Your task to perform on an android device: Is it going to rain tomorrow? Image 0: 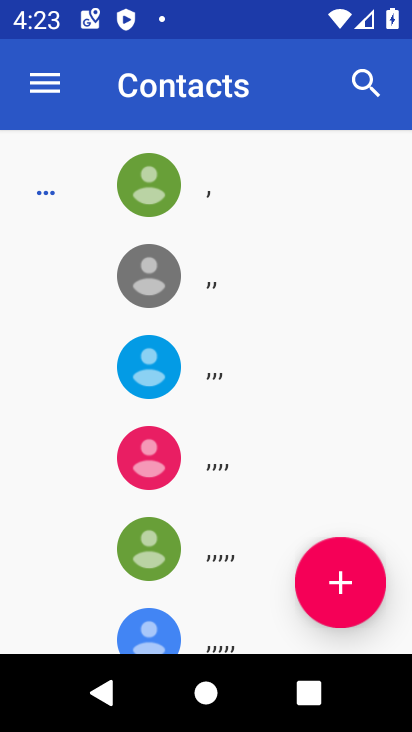
Step 0: press home button
Your task to perform on an android device: Is it going to rain tomorrow? Image 1: 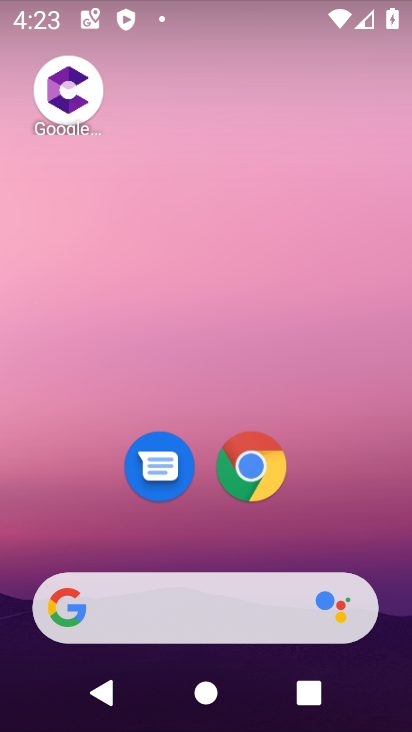
Step 1: drag from (343, 426) to (333, 71)
Your task to perform on an android device: Is it going to rain tomorrow? Image 2: 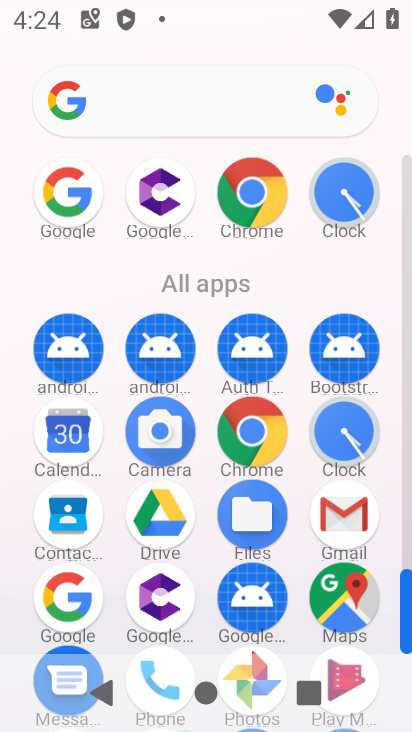
Step 2: press home button
Your task to perform on an android device: Is it going to rain tomorrow? Image 3: 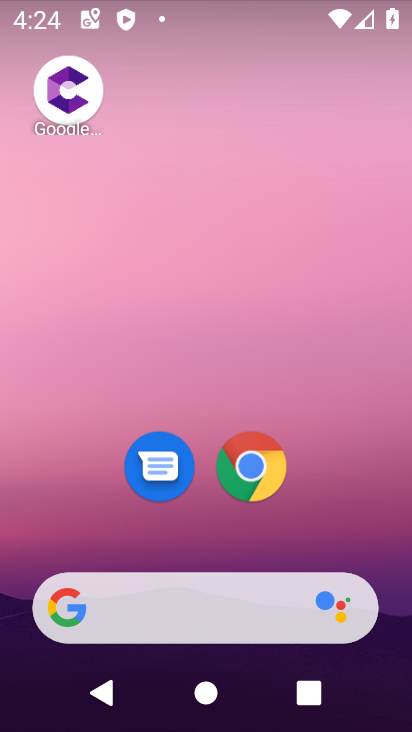
Step 3: drag from (345, 395) to (2, 363)
Your task to perform on an android device: Is it going to rain tomorrow? Image 4: 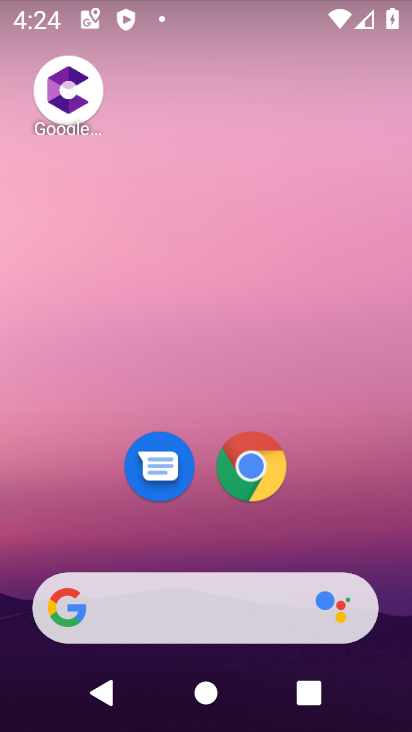
Step 4: press home button
Your task to perform on an android device: Is it going to rain tomorrow? Image 5: 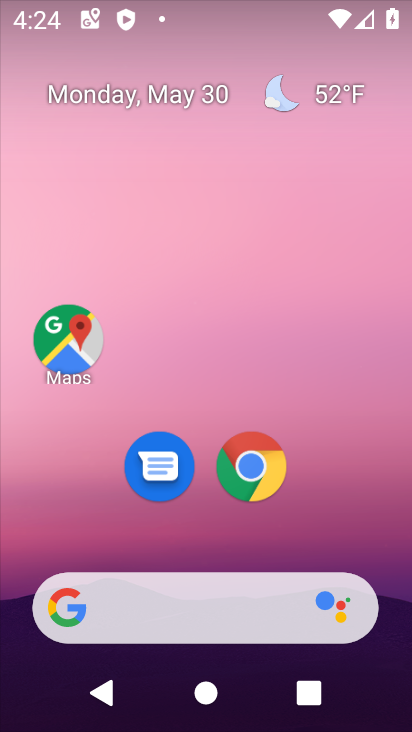
Step 5: click (353, 106)
Your task to perform on an android device: Is it going to rain tomorrow? Image 6: 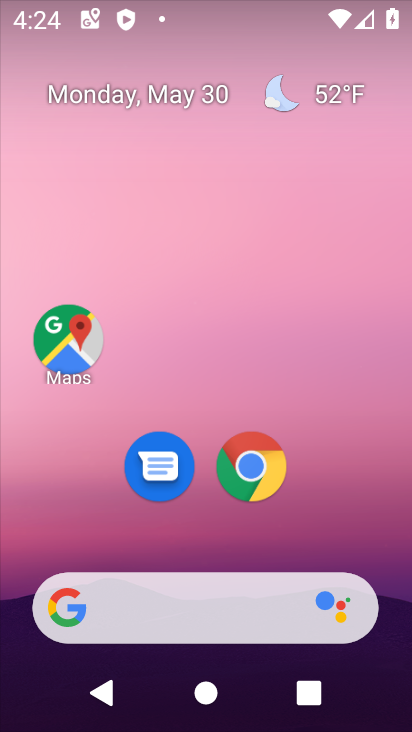
Step 6: click (334, 103)
Your task to perform on an android device: Is it going to rain tomorrow? Image 7: 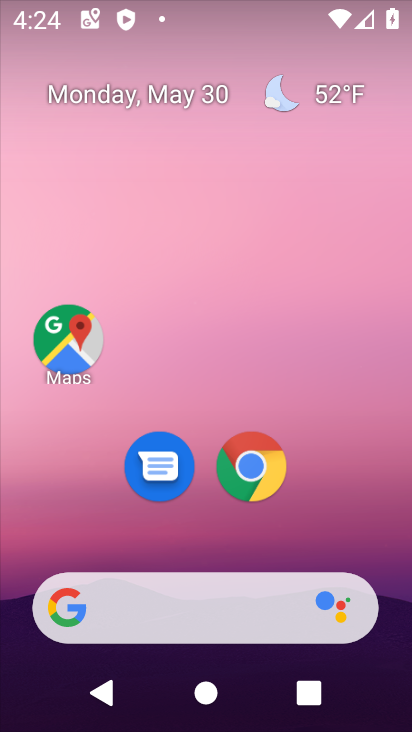
Step 7: click (335, 102)
Your task to perform on an android device: Is it going to rain tomorrow? Image 8: 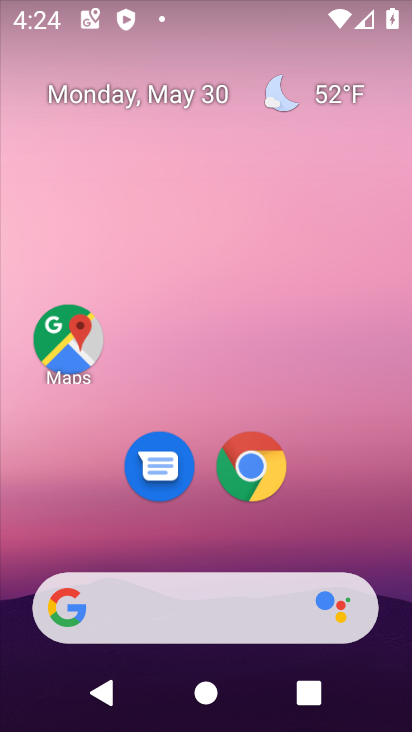
Step 8: click (337, 99)
Your task to perform on an android device: Is it going to rain tomorrow? Image 9: 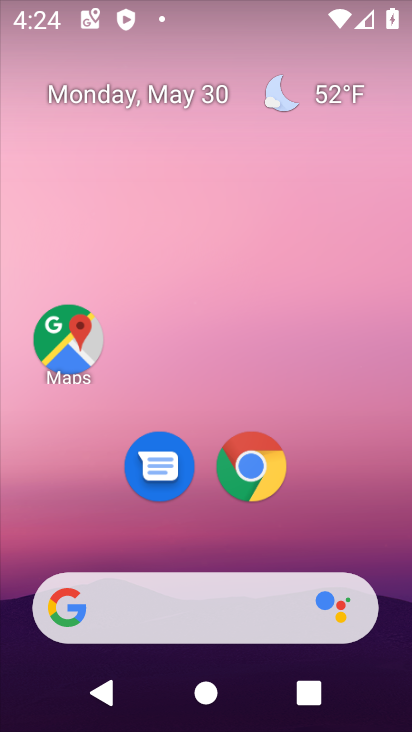
Step 9: click (248, 277)
Your task to perform on an android device: Is it going to rain tomorrow? Image 10: 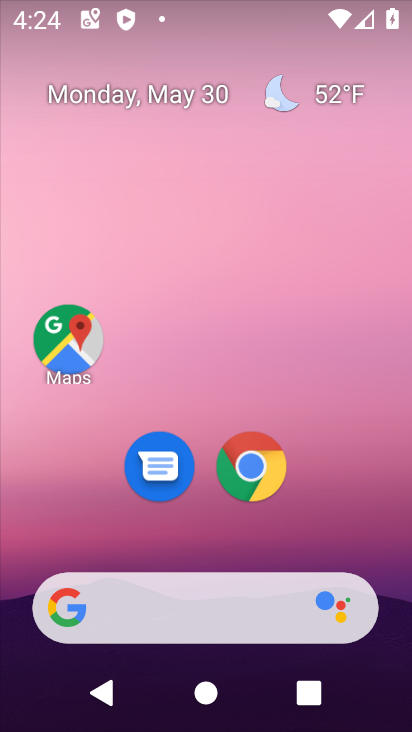
Step 10: click (346, 93)
Your task to perform on an android device: Is it going to rain tomorrow? Image 11: 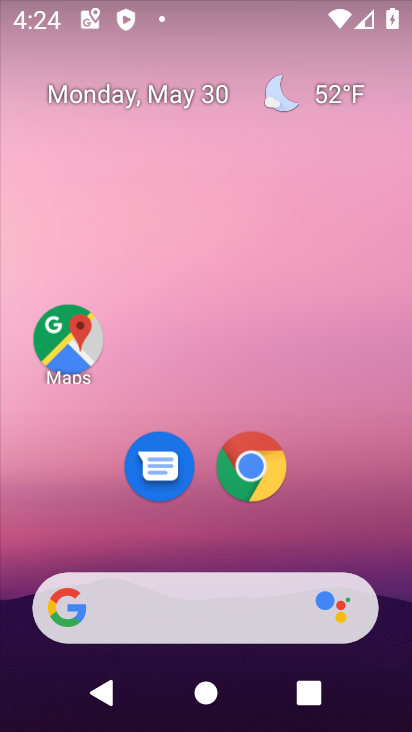
Step 11: drag from (321, 525) to (301, 117)
Your task to perform on an android device: Is it going to rain tomorrow? Image 12: 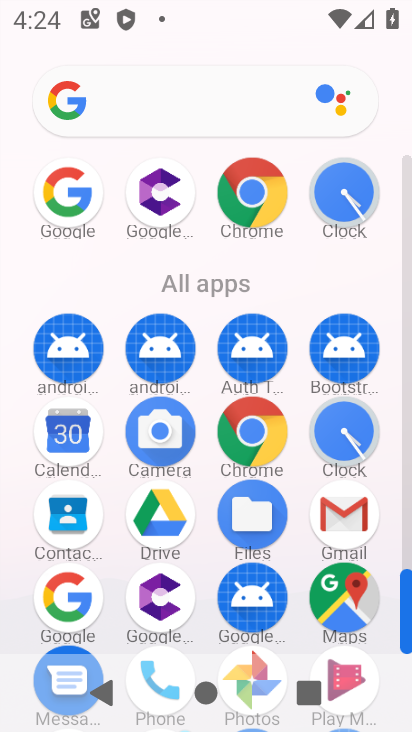
Step 12: press home button
Your task to perform on an android device: Is it going to rain tomorrow? Image 13: 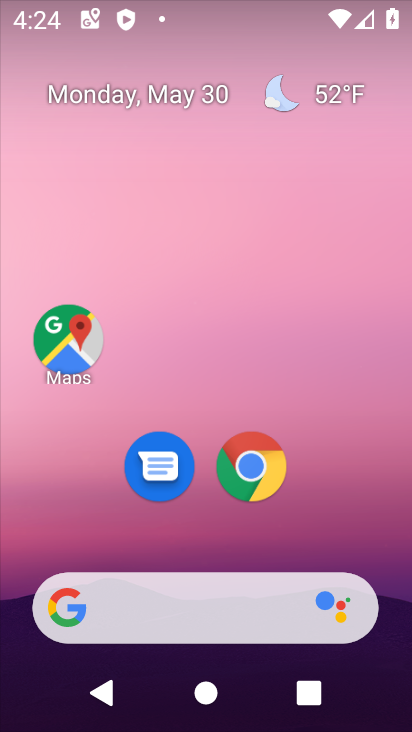
Step 13: click (349, 103)
Your task to perform on an android device: Is it going to rain tomorrow? Image 14: 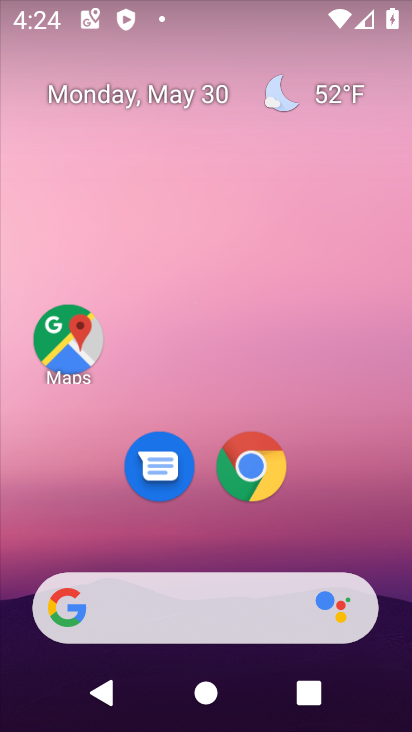
Step 14: click (330, 94)
Your task to perform on an android device: Is it going to rain tomorrow? Image 15: 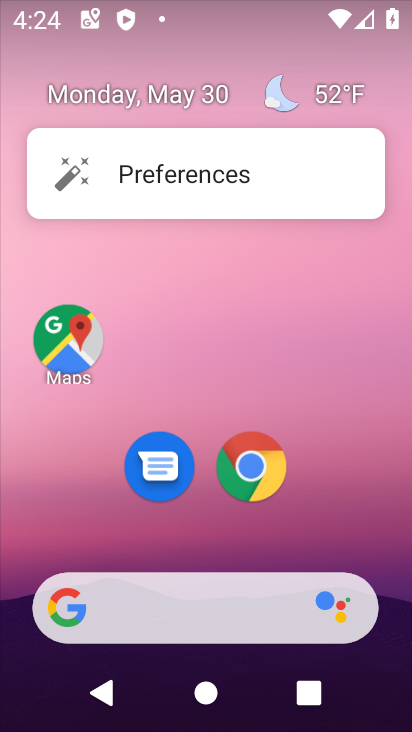
Step 15: click (270, 95)
Your task to perform on an android device: Is it going to rain tomorrow? Image 16: 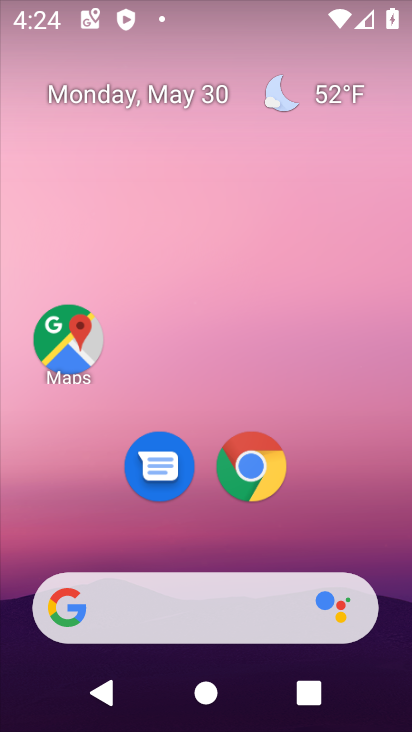
Step 16: click (339, 94)
Your task to perform on an android device: Is it going to rain tomorrow? Image 17: 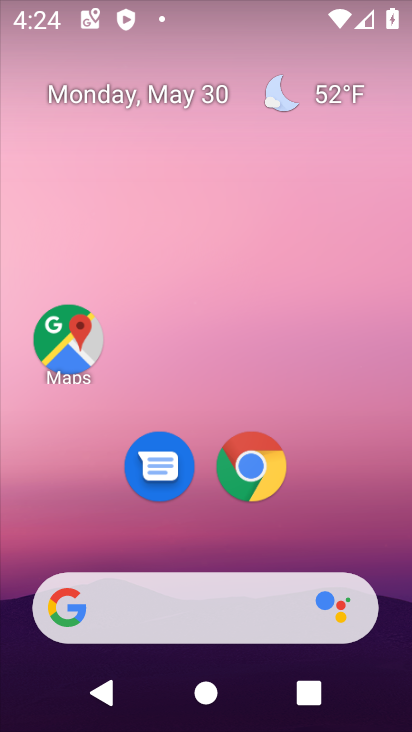
Step 17: click (340, 92)
Your task to perform on an android device: Is it going to rain tomorrow? Image 18: 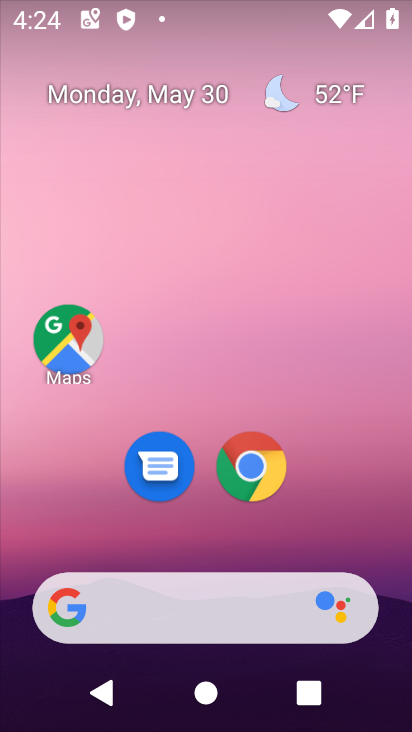
Step 18: drag from (367, 514) to (297, 81)
Your task to perform on an android device: Is it going to rain tomorrow? Image 19: 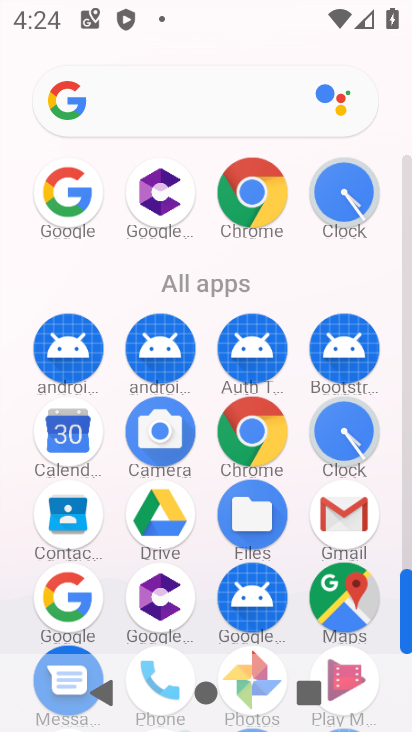
Step 19: click (262, 424)
Your task to perform on an android device: Is it going to rain tomorrow? Image 20: 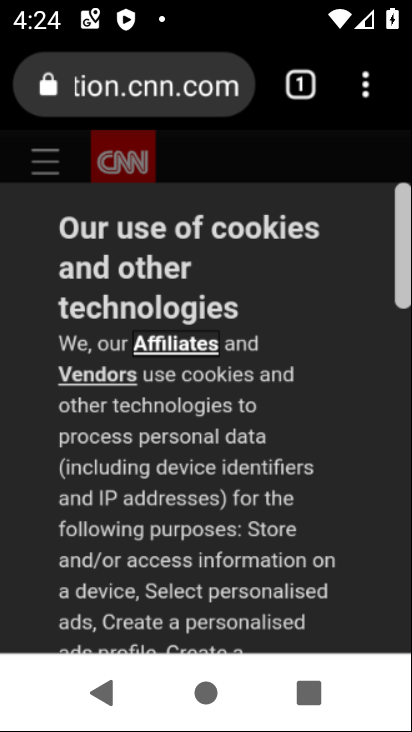
Step 20: click (188, 86)
Your task to perform on an android device: Is it going to rain tomorrow? Image 21: 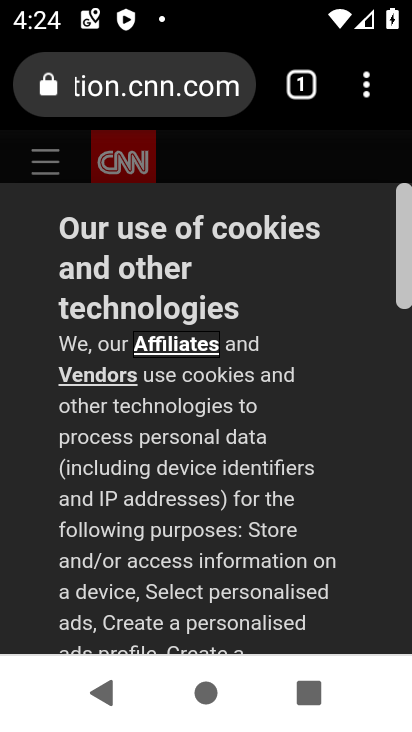
Step 21: type "weather"
Your task to perform on an android device: Is it going to rain tomorrow? Image 22: 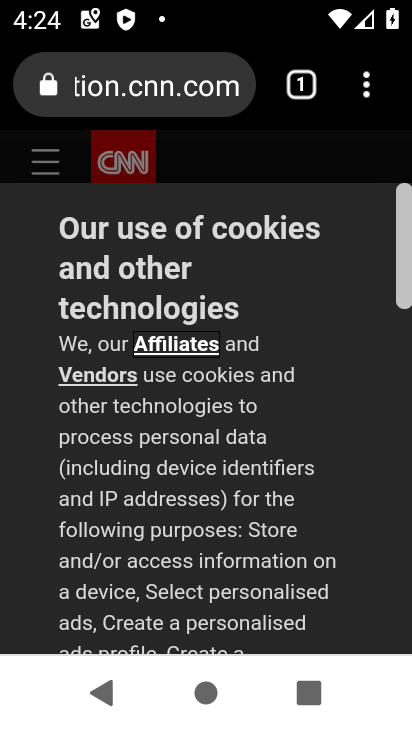
Step 22: click (158, 69)
Your task to perform on an android device: Is it going to rain tomorrow? Image 23: 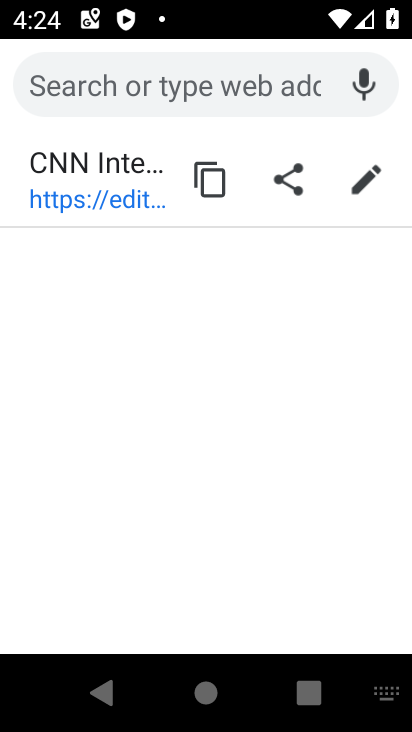
Step 23: type "weather"
Your task to perform on an android device: Is it going to rain tomorrow? Image 24: 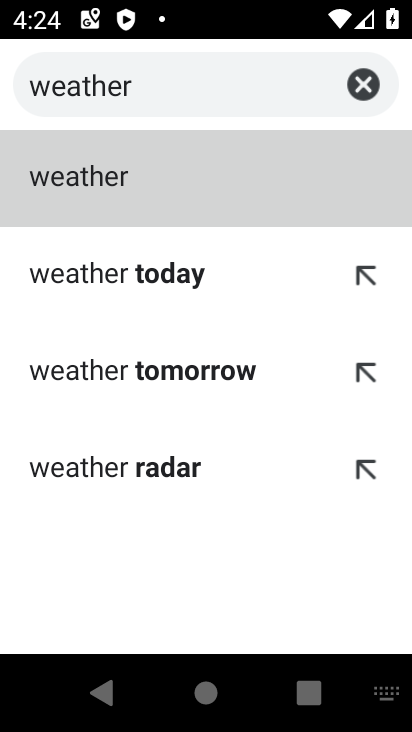
Step 24: click (100, 157)
Your task to perform on an android device: Is it going to rain tomorrow? Image 25: 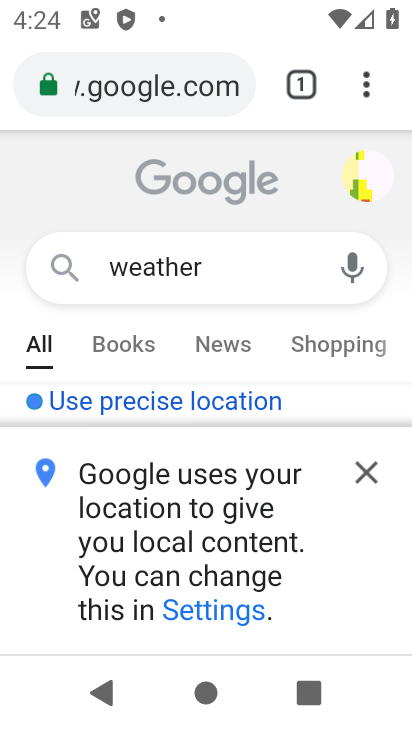
Step 25: drag from (250, 342) to (272, 3)
Your task to perform on an android device: Is it going to rain tomorrow? Image 26: 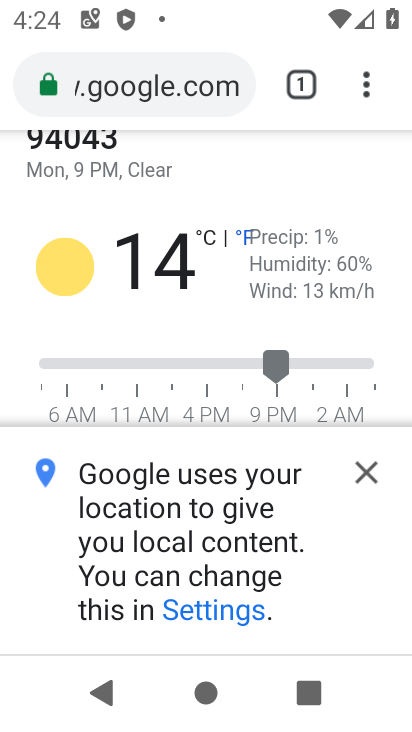
Step 26: click (362, 467)
Your task to perform on an android device: Is it going to rain tomorrow? Image 27: 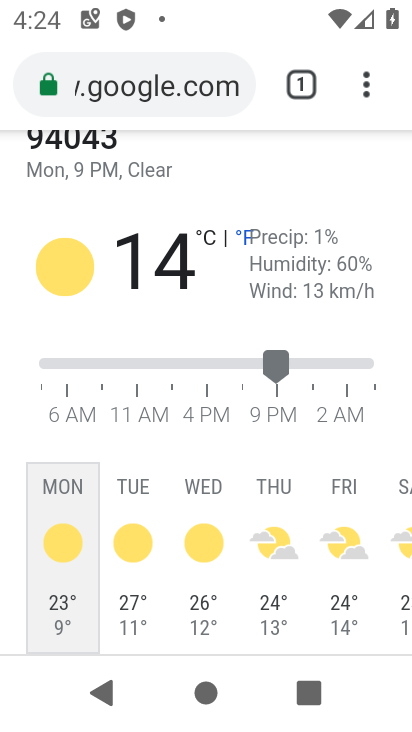
Step 27: click (144, 543)
Your task to perform on an android device: Is it going to rain tomorrow? Image 28: 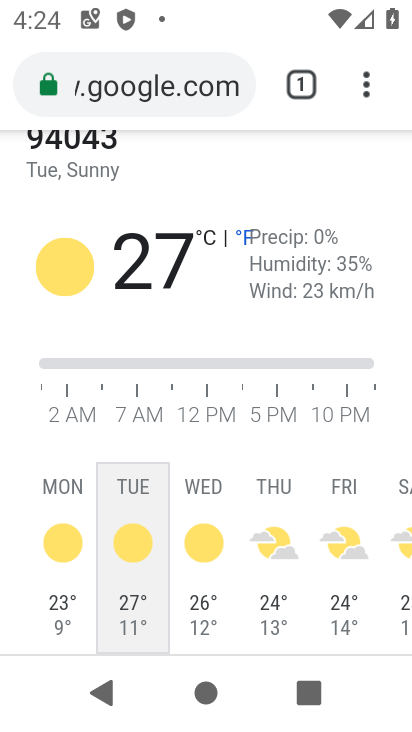
Step 28: task complete